Your task to perform on an android device: turn off notifications in google photos Image 0: 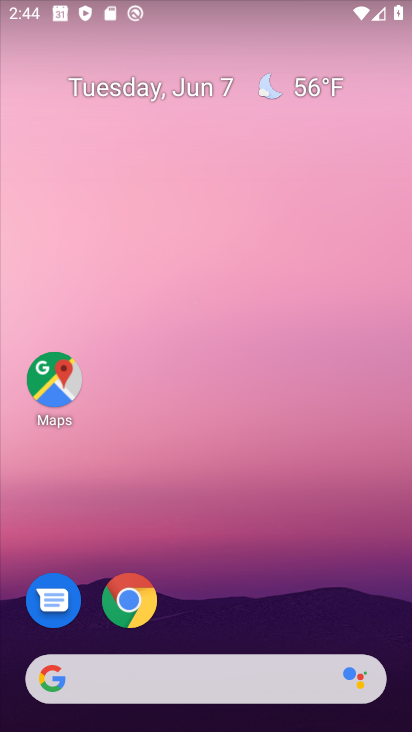
Step 0: drag from (397, 606) to (302, 142)
Your task to perform on an android device: turn off notifications in google photos Image 1: 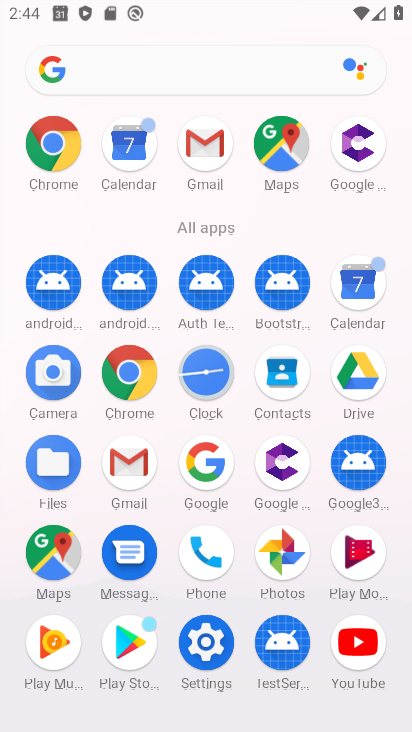
Step 1: click (273, 563)
Your task to perform on an android device: turn off notifications in google photos Image 2: 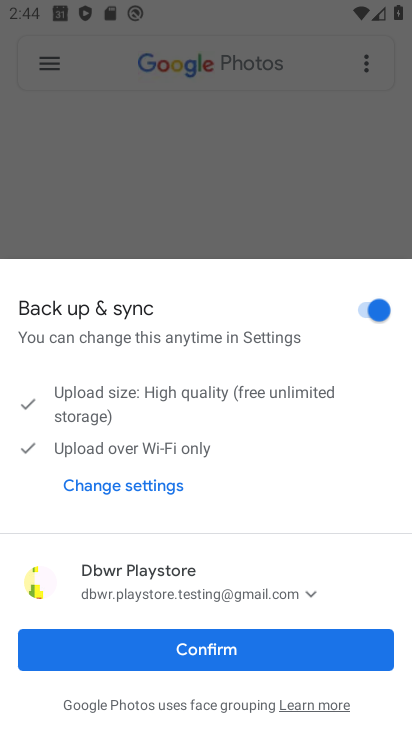
Step 2: click (255, 648)
Your task to perform on an android device: turn off notifications in google photos Image 3: 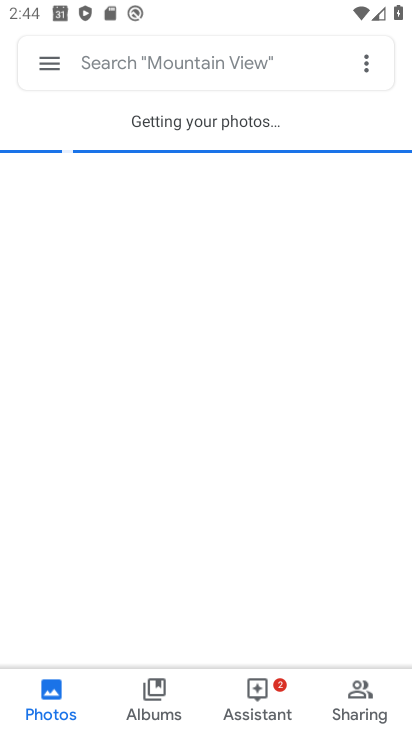
Step 3: click (52, 69)
Your task to perform on an android device: turn off notifications in google photos Image 4: 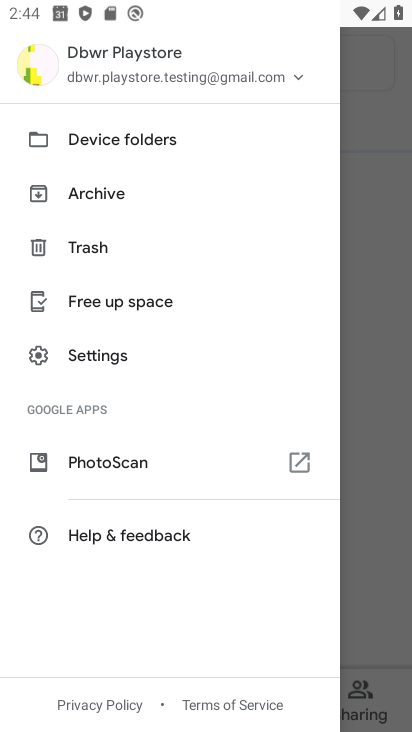
Step 4: click (101, 358)
Your task to perform on an android device: turn off notifications in google photos Image 5: 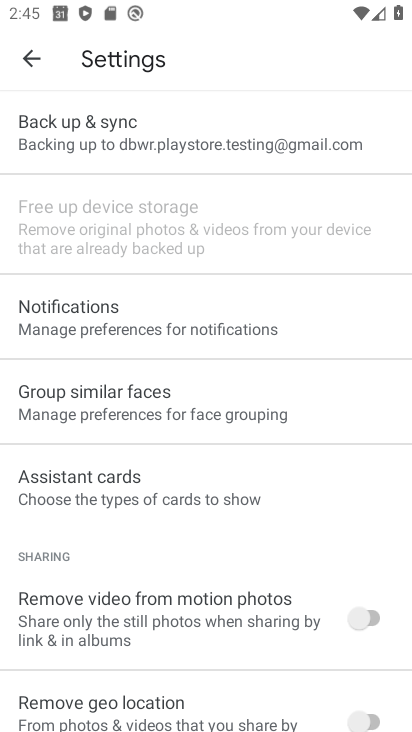
Step 5: drag from (159, 655) to (150, 263)
Your task to perform on an android device: turn off notifications in google photos Image 6: 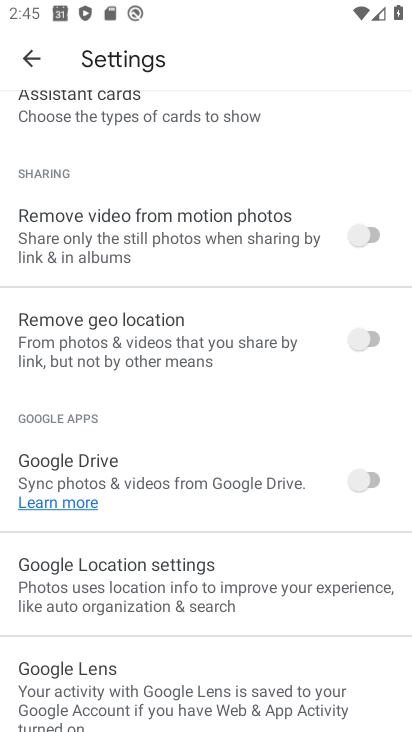
Step 6: drag from (140, 166) to (174, 563)
Your task to perform on an android device: turn off notifications in google photos Image 7: 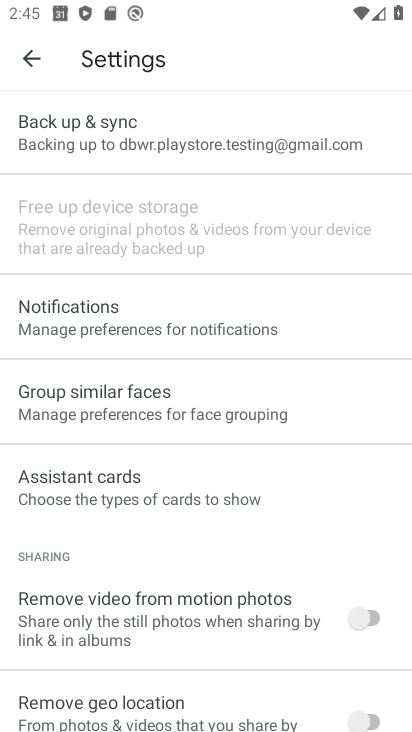
Step 7: click (113, 309)
Your task to perform on an android device: turn off notifications in google photos Image 8: 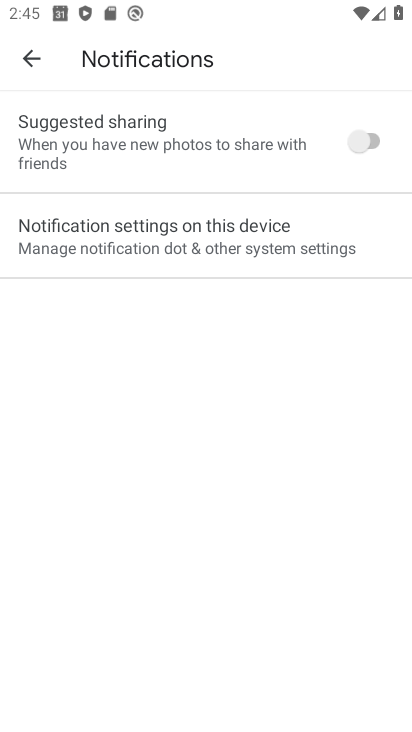
Step 8: click (29, 65)
Your task to perform on an android device: turn off notifications in google photos Image 9: 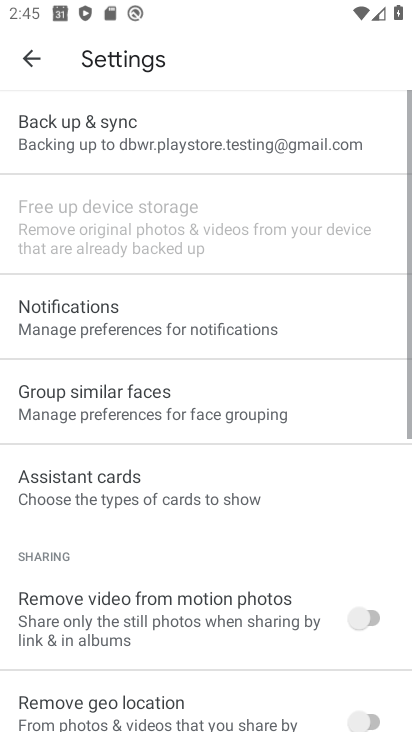
Step 9: drag from (158, 184) to (174, 566)
Your task to perform on an android device: turn off notifications in google photos Image 10: 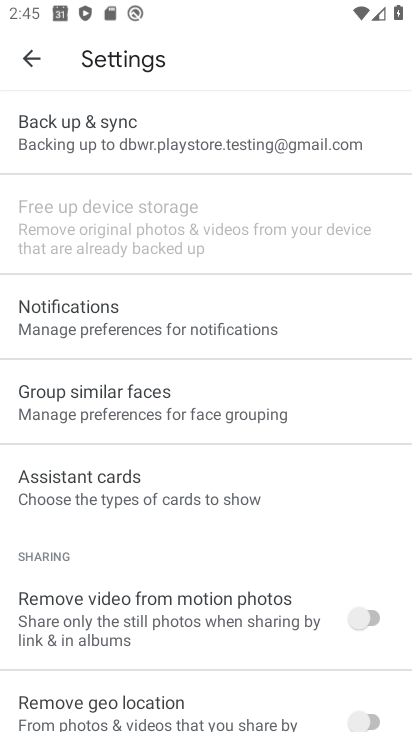
Step 10: click (105, 317)
Your task to perform on an android device: turn off notifications in google photos Image 11: 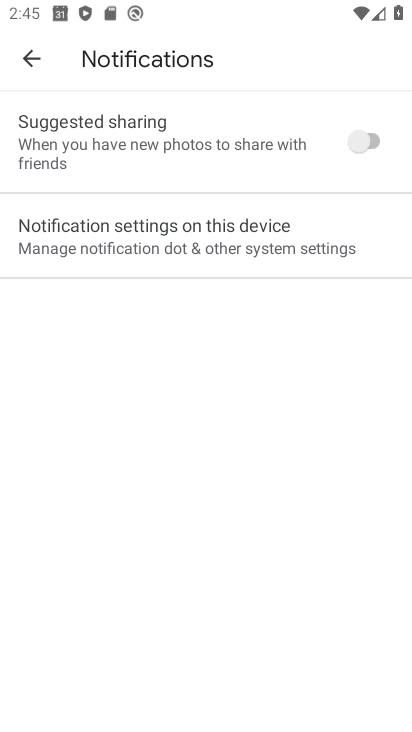
Step 11: task complete